Your task to perform on an android device: open app "PlayWell" (install if not already installed) Image 0: 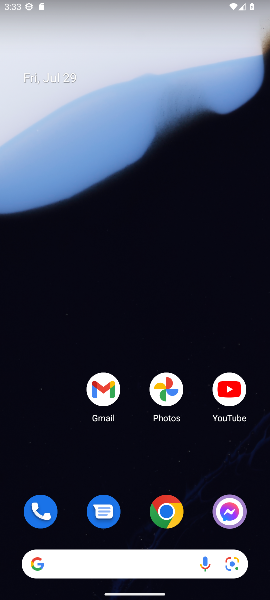
Step 0: drag from (3, 559) to (219, 14)
Your task to perform on an android device: open app "PlayWell" (install if not already installed) Image 1: 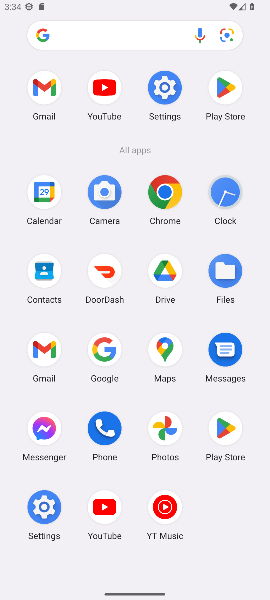
Step 1: click (215, 429)
Your task to perform on an android device: open app "PlayWell" (install if not already installed) Image 2: 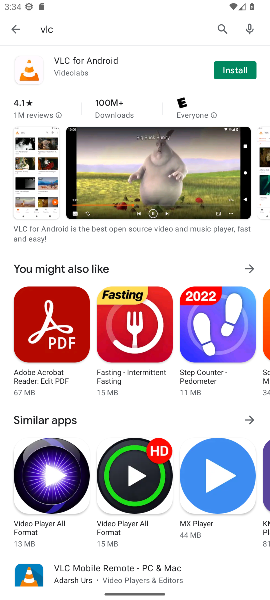
Step 2: click (21, 30)
Your task to perform on an android device: open app "PlayWell" (install if not already installed) Image 3: 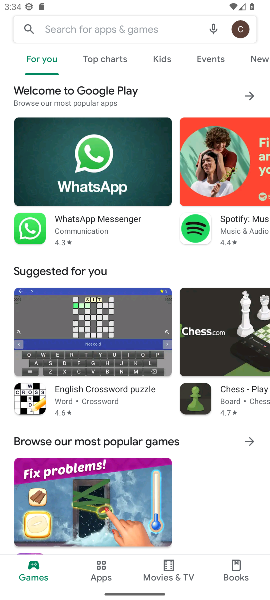
Step 3: click (67, 26)
Your task to perform on an android device: open app "PlayWell" (install if not already installed) Image 4: 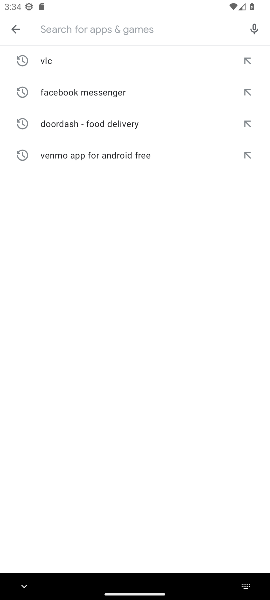
Step 4: type "PlayWell"
Your task to perform on an android device: open app "PlayWell" (install if not already installed) Image 5: 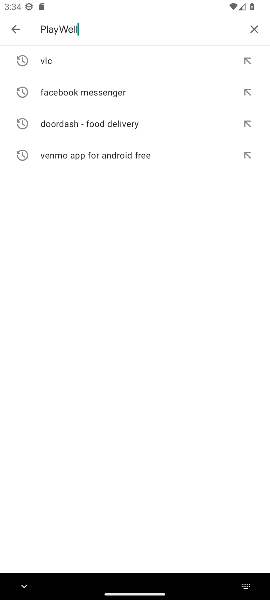
Step 5: type ""
Your task to perform on an android device: open app "PlayWell" (install if not already installed) Image 6: 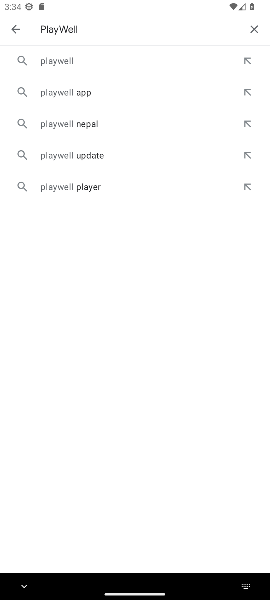
Step 6: click (62, 64)
Your task to perform on an android device: open app "PlayWell" (install if not already installed) Image 7: 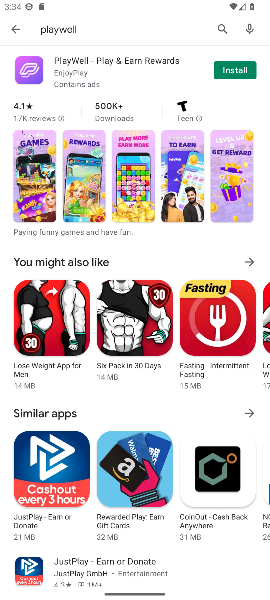
Step 7: click (245, 59)
Your task to perform on an android device: open app "PlayWell" (install if not already installed) Image 8: 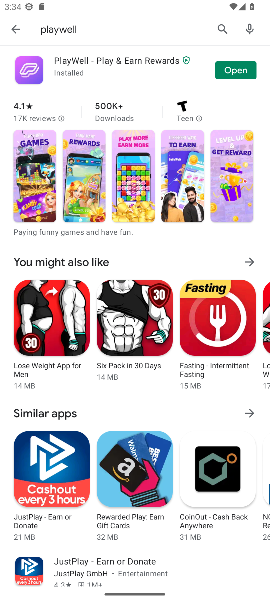
Step 8: click (233, 68)
Your task to perform on an android device: open app "PlayWell" (install if not already installed) Image 9: 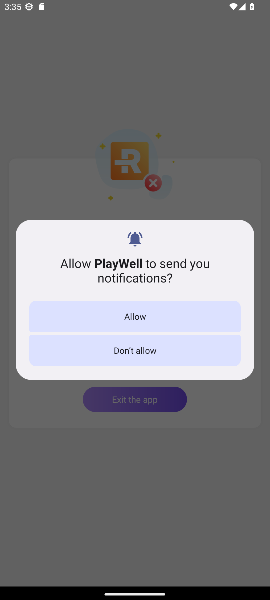
Step 9: task complete